Your task to perform on an android device: Show me popular videos on Youtube Image 0: 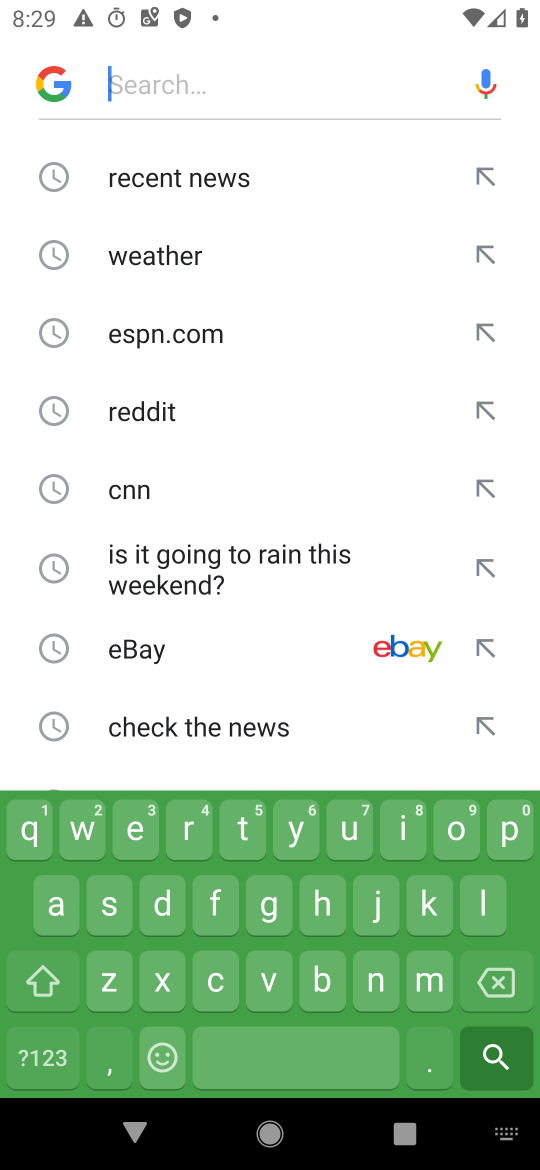
Step 0: press home button
Your task to perform on an android device: Show me popular videos on Youtube Image 1: 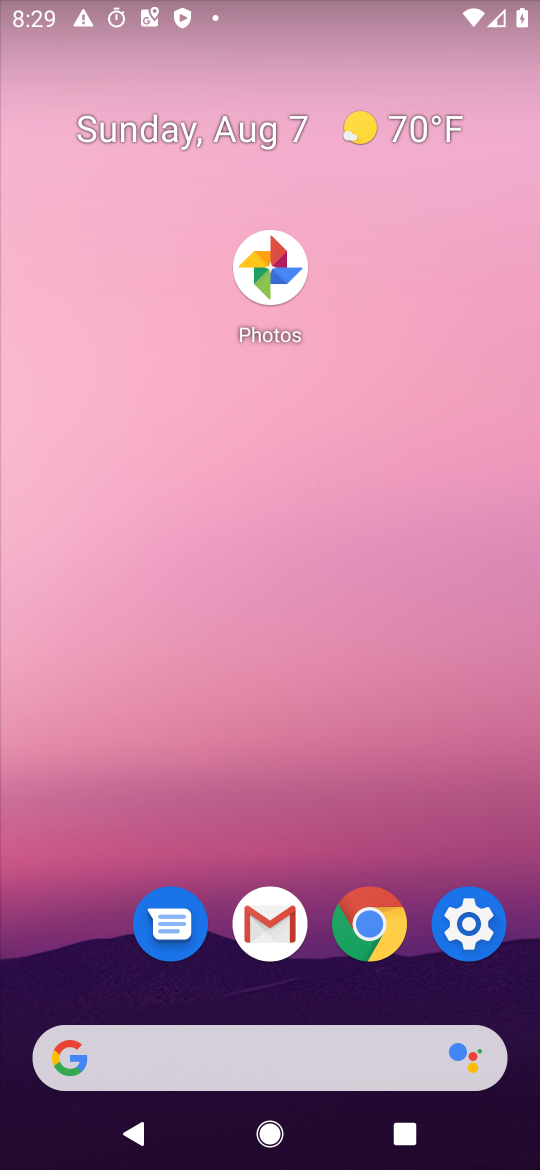
Step 1: drag from (357, 989) to (285, 282)
Your task to perform on an android device: Show me popular videos on Youtube Image 2: 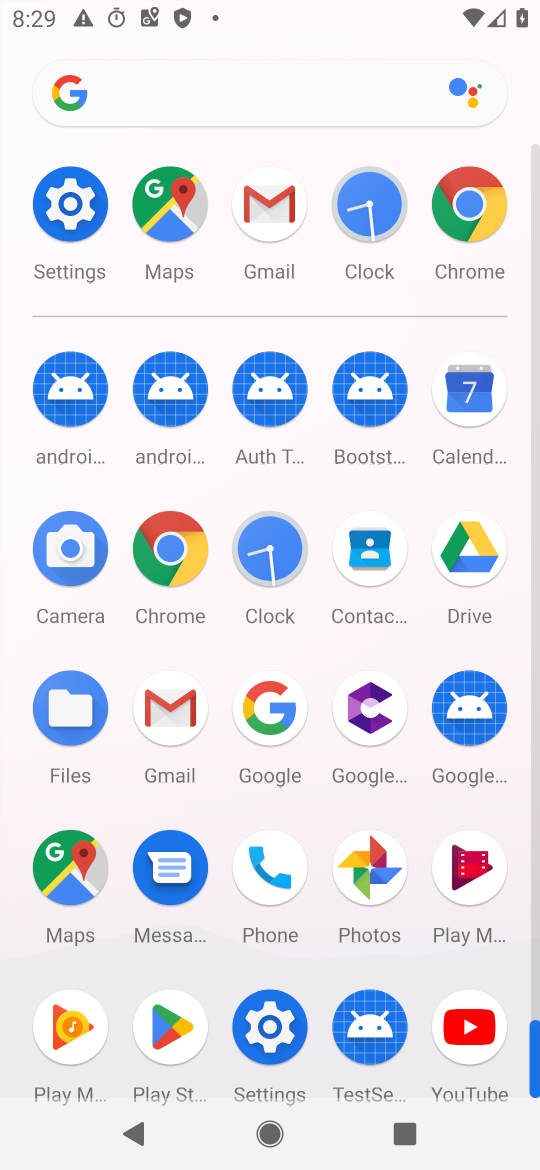
Step 2: click (462, 1023)
Your task to perform on an android device: Show me popular videos on Youtube Image 3: 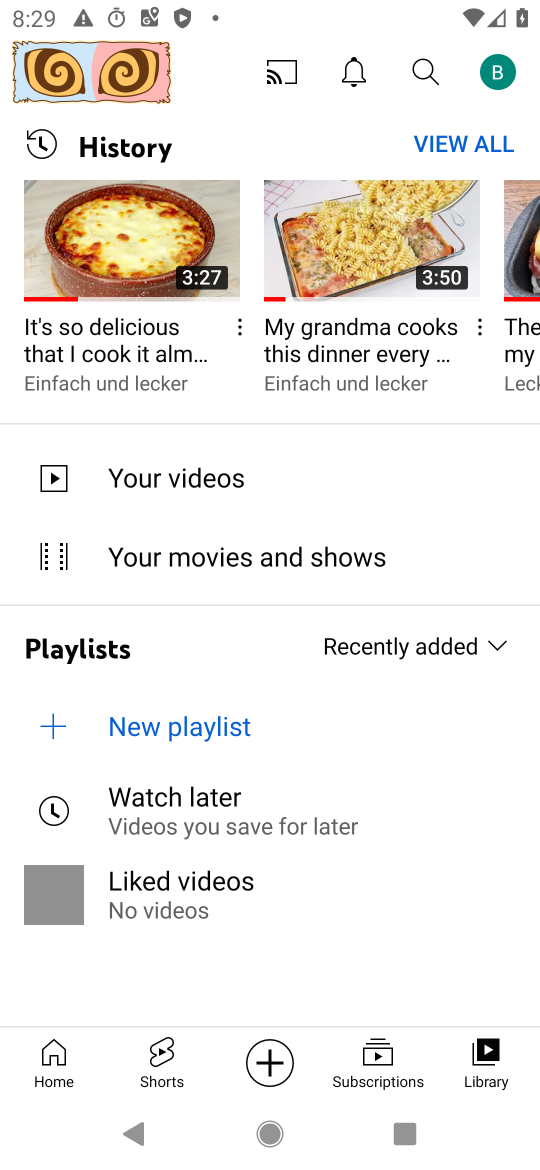
Step 3: click (418, 69)
Your task to perform on an android device: Show me popular videos on Youtube Image 4: 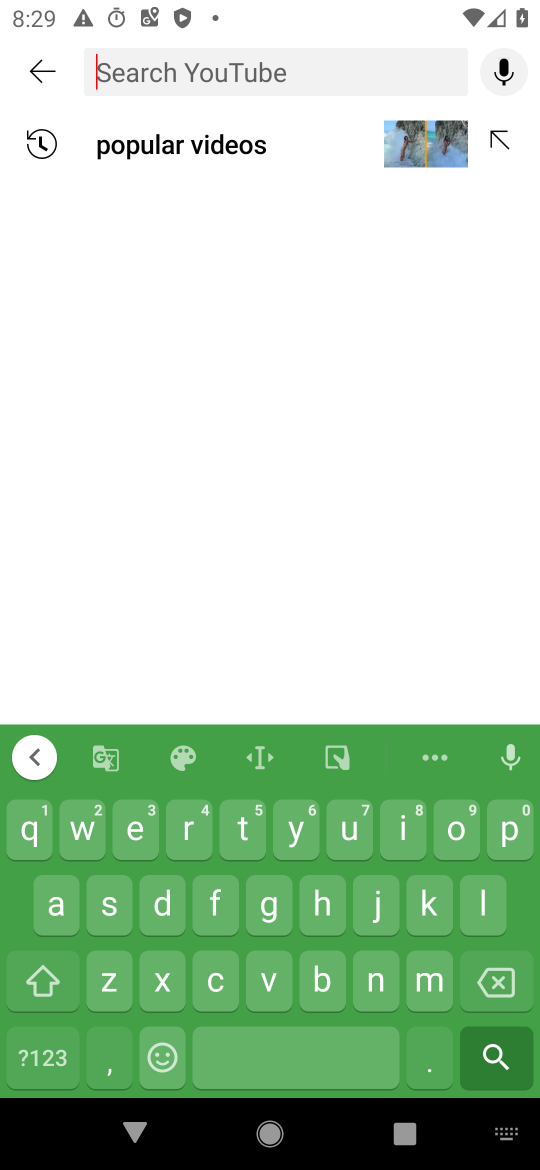
Step 4: click (214, 139)
Your task to perform on an android device: Show me popular videos on Youtube Image 5: 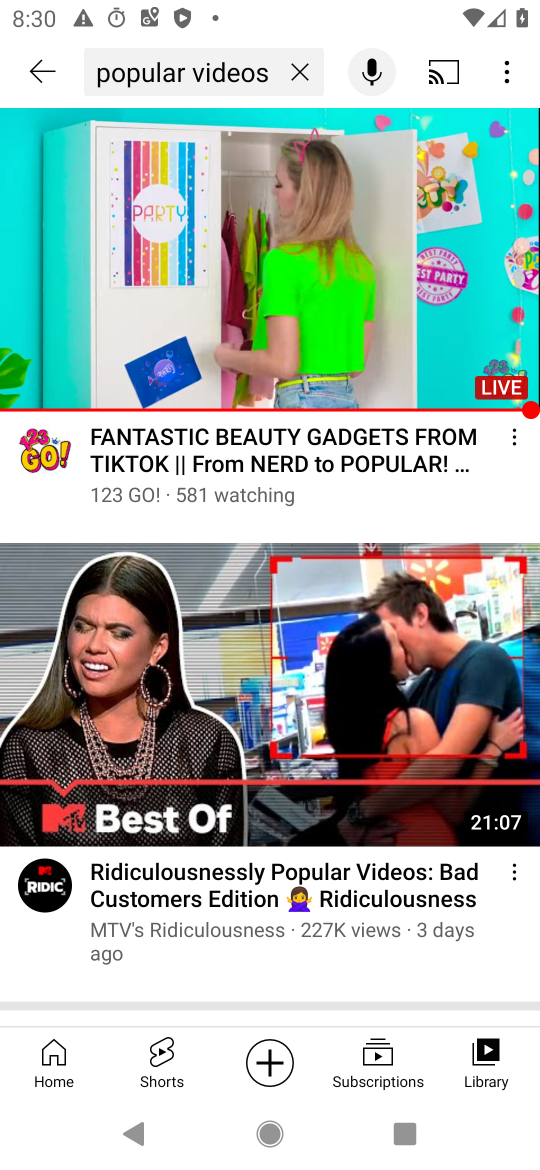
Step 5: task complete